Your task to perform on an android device: Go to internet settings Image 0: 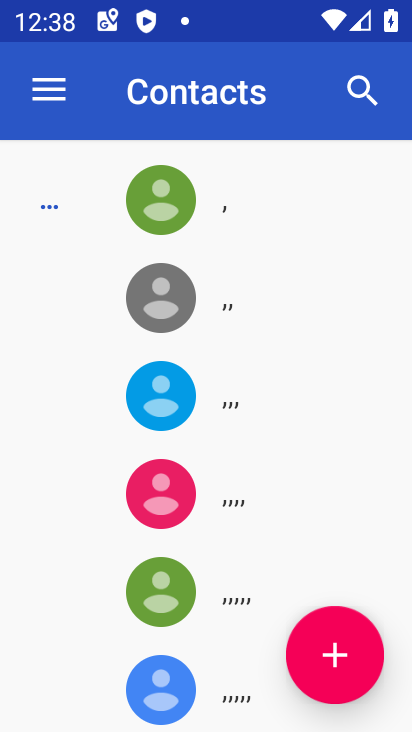
Step 0: press home button
Your task to perform on an android device: Go to internet settings Image 1: 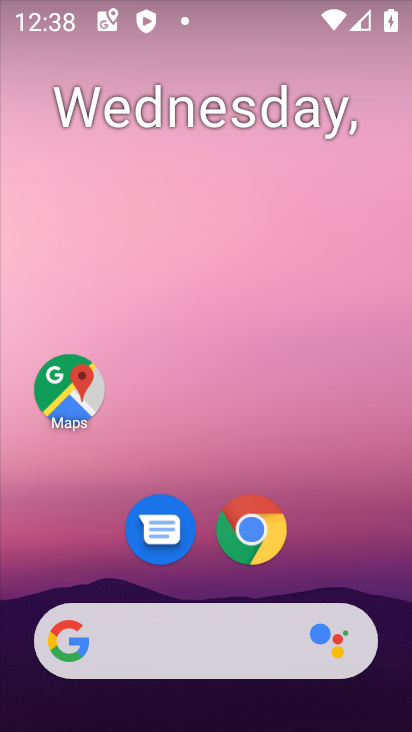
Step 1: drag from (371, 517) to (329, 97)
Your task to perform on an android device: Go to internet settings Image 2: 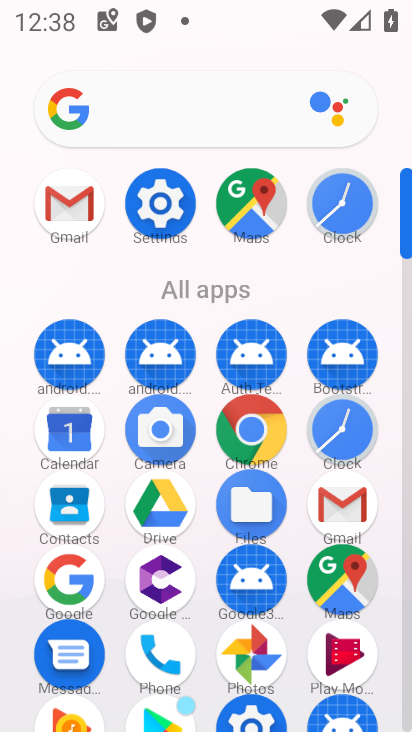
Step 2: click (406, 712)
Your task to perform on an android device: Go to internet settings Image 3: 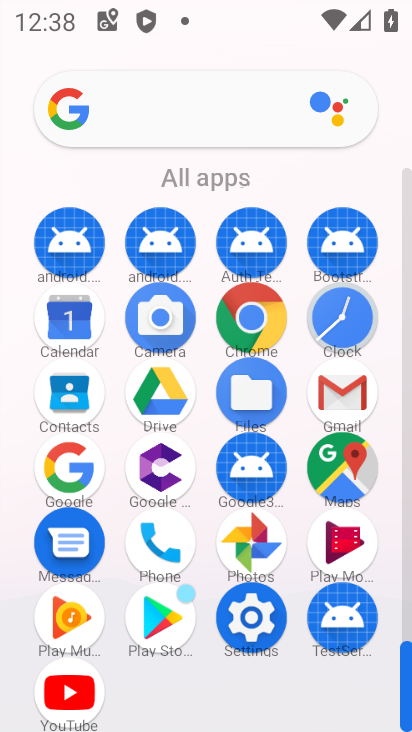
Step 3: click (256, 617)
Your task to perform on an android device: Go to internet settings Image 4: 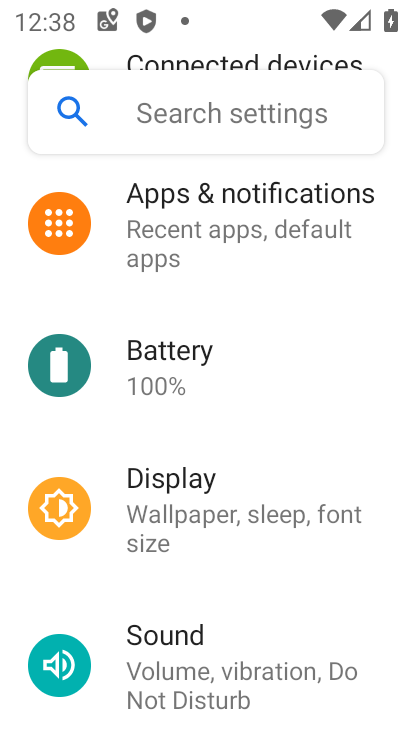
Step 4: drag from (361, 279) to (379, 573)
Your task to perform on an android device: Go to internet settings Image 5: 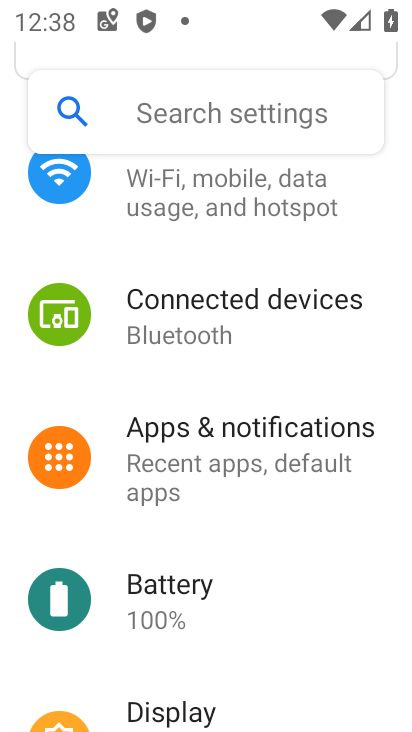
Step 5: drag from (372, 226) to (378, 500)
Your task to perform on an android device: Go to internet settings Image 6: 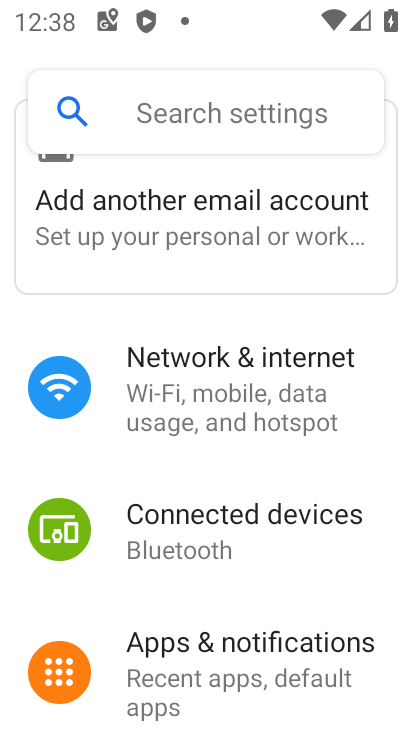
Step 6: click (170, 374)
Your task to perform on an android device: Go to internet settings Image 7: 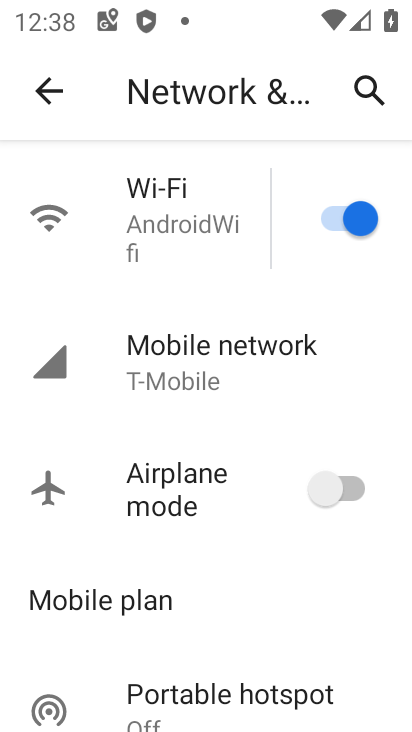
Step 7: click (155, 338)
Your task to perform on an android device: Go to internet settings Image 8: 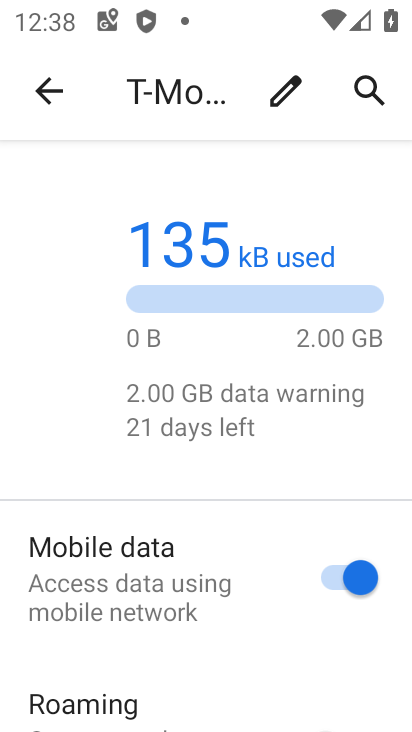
Step 8: task complete